Your task to perform on an android device: open device folders in google photos Image 0: 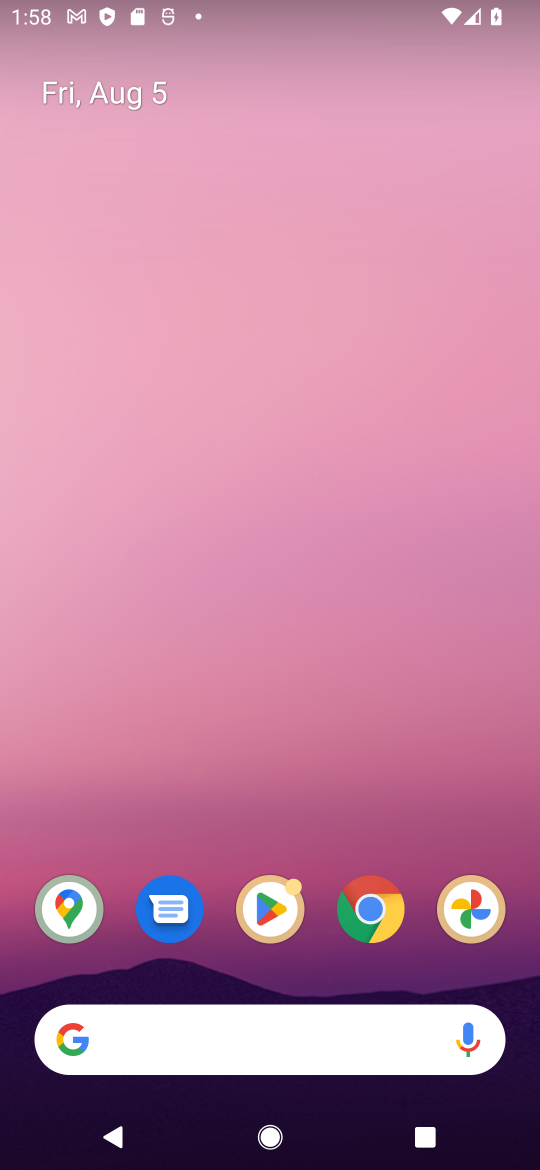
Step 0: click (488, 926)
Your task to perform on an android device: open device folders in google photos Image 1: 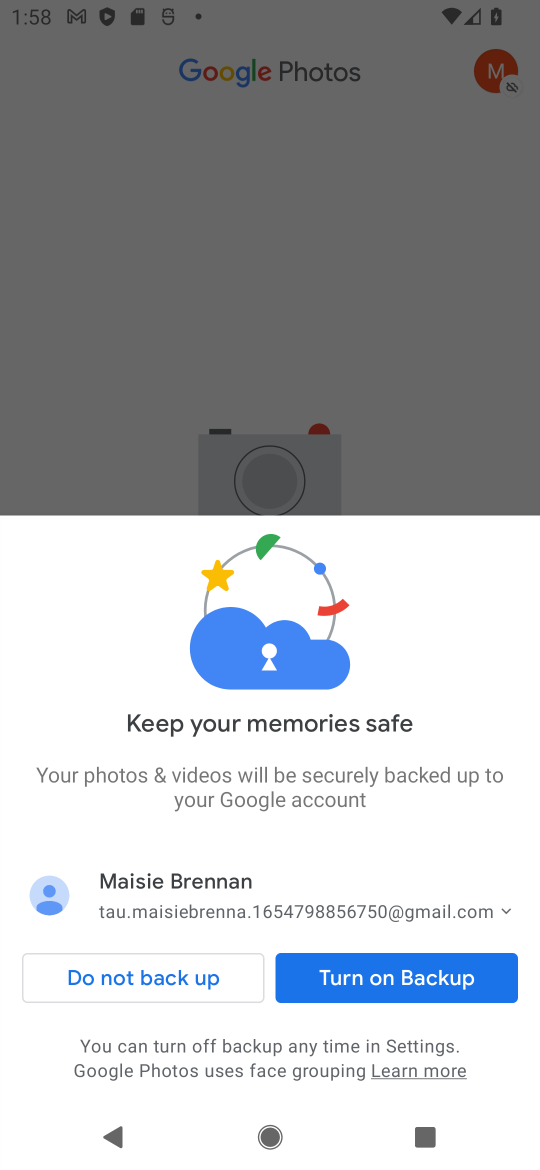
Step 1: click (142, 987)
Your task to perform on an android device: open device folders in google photos Image 2: 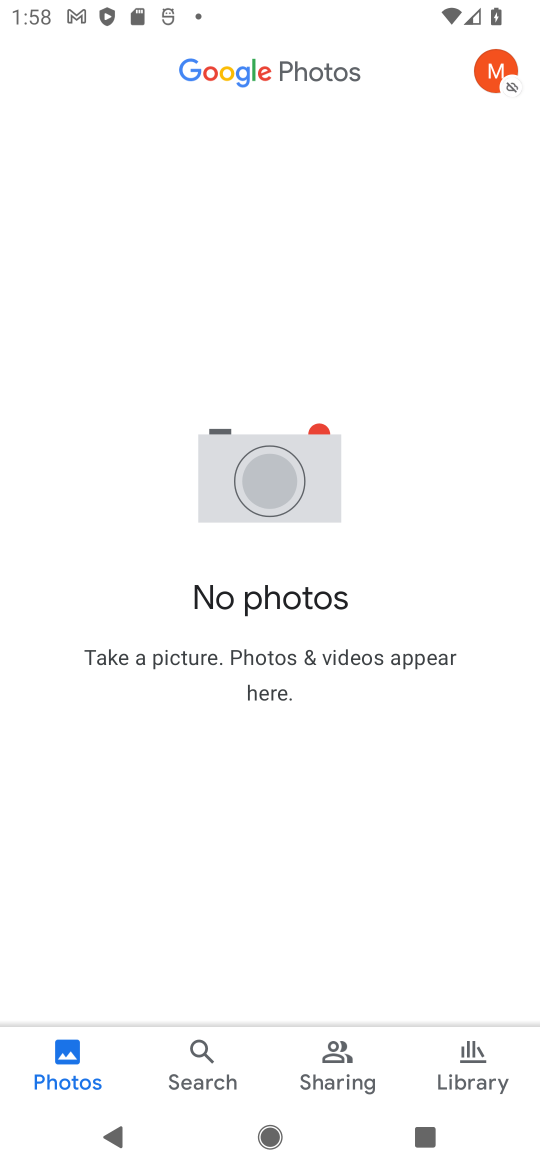
Step 2: click (491, 75)
Your task to perform on an android device: open device folders in google photos Image 3: 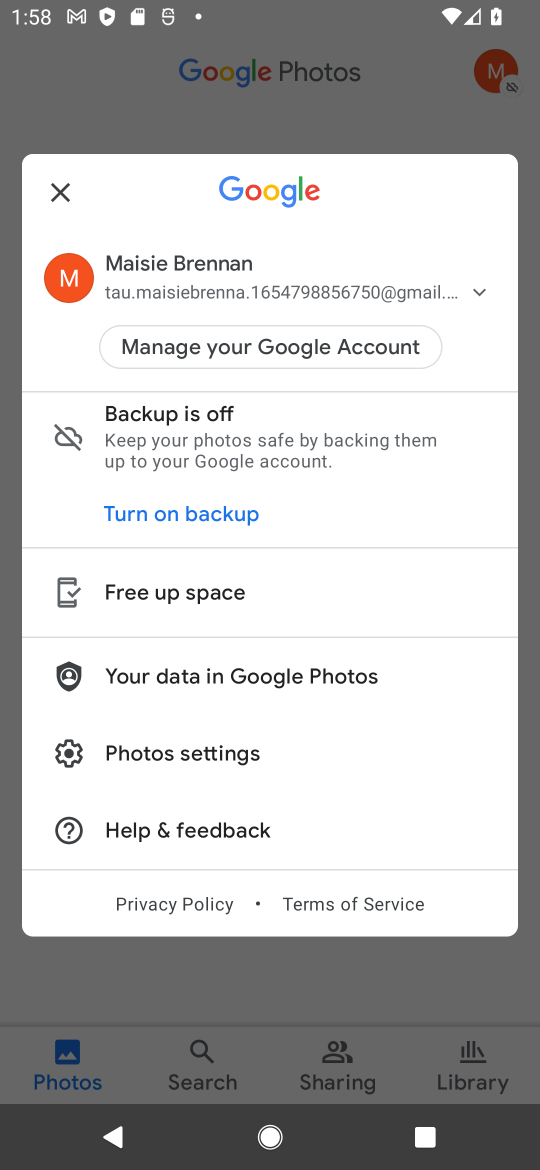
Step 3: task complete